Your task to perform on an android device: Open Reddit.com Image 0: 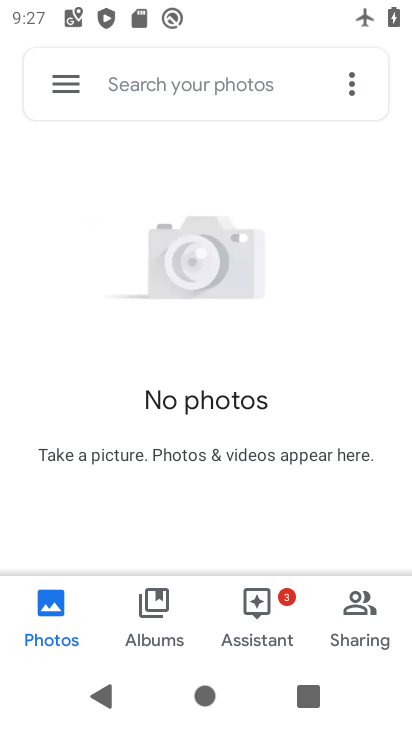
Step 0: press back button
Your task to perform on an android device: Open Reddit.com Image 1: 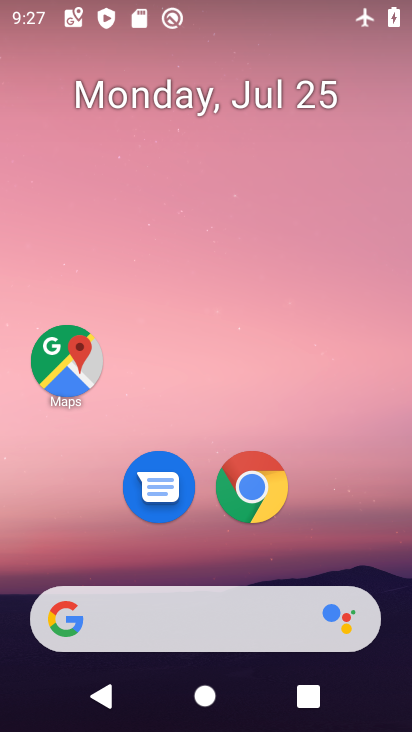
Step 1: click (246, 497)
Your task to perform on an android device: Open Reddit.com Image 2: 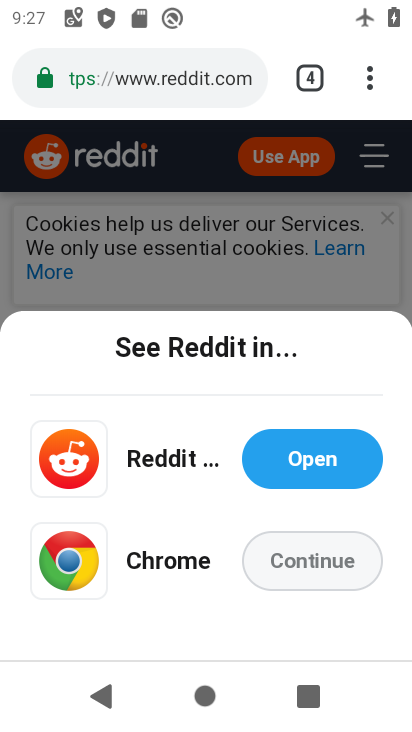
Step 2: task complete